Your task to perform on an android device: check the backup settings in the google photos Image 0: 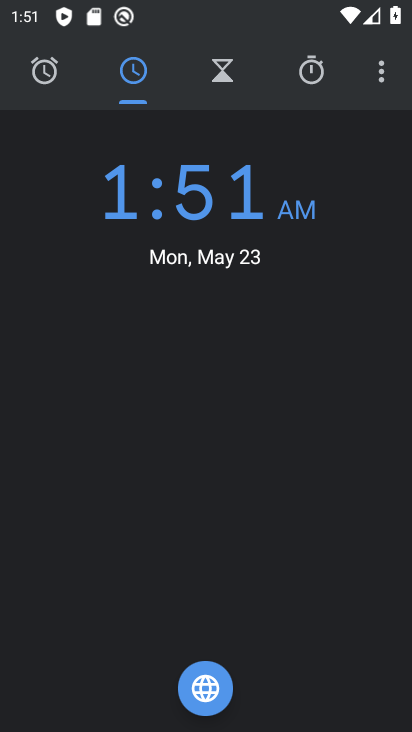
Step 0: press home button
Your task to perform on an android device: check the backup settings in the google photos Image 1: 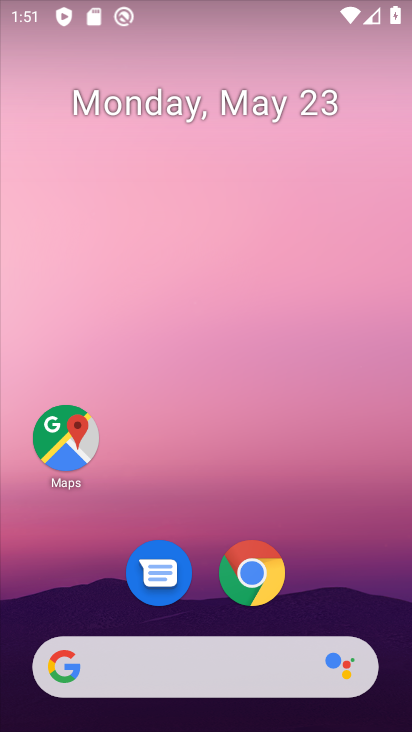
Step 1: drag from (332, 576) to (345, 105)
Your task to perform on an android device: check the backup settings in the google photos Image 2: 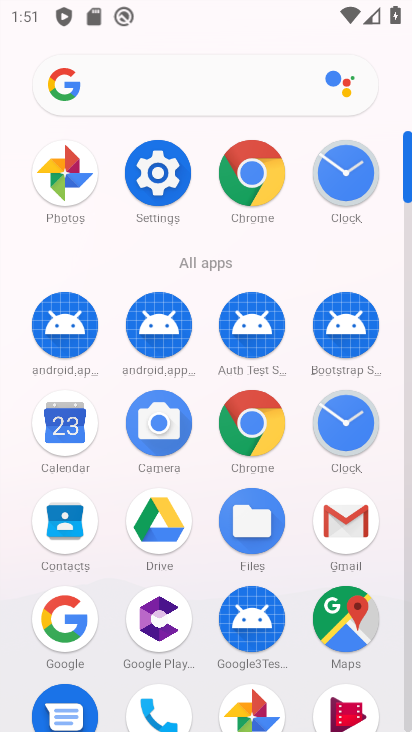
Step 2: click (54, 177)
Your task to perform on an android device: check the backup settings in the google photos Image 3: 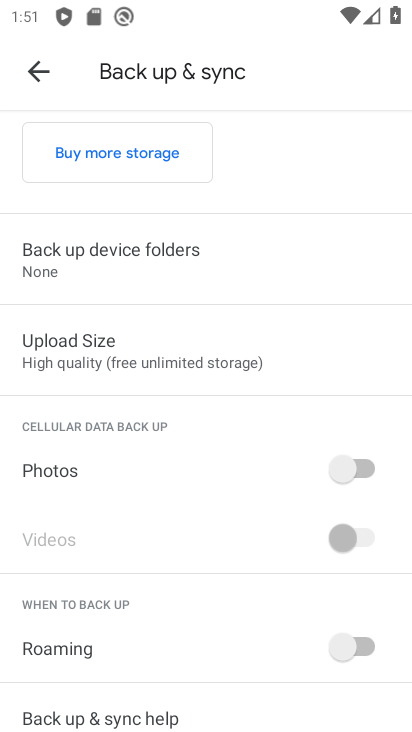
Step 3: task complete